Your task to perform on an android device: toggle improve location accuracy Image 0: 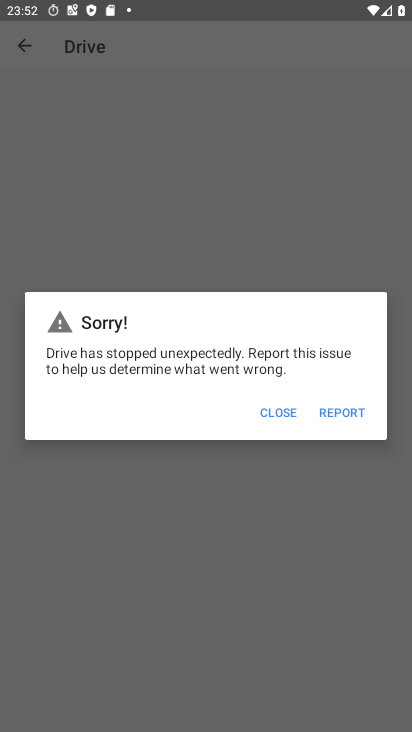
Step 0: press home button
Your task to perform on an android device: toggle improve location accuracy Image 1: 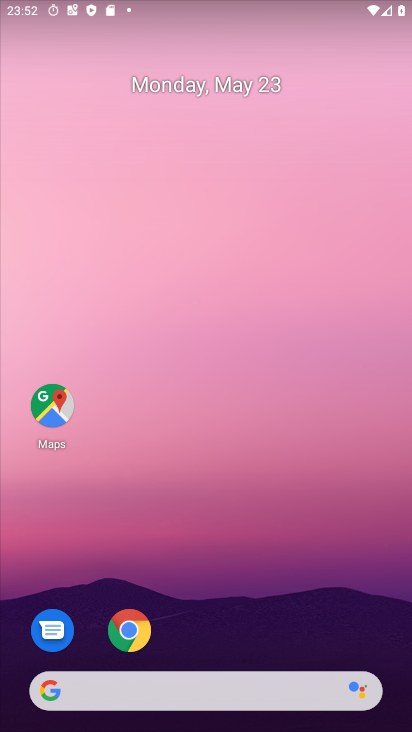
Step 1: drag from (253, 655) to (254, 14)
Your task to perform on an android device: toggle improve location accuracy Image 2: 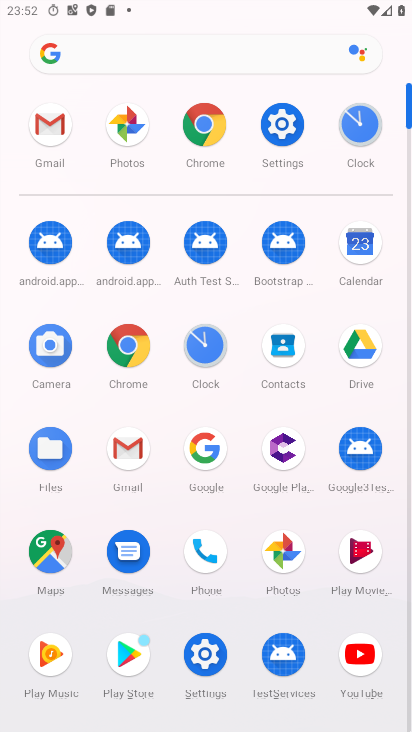
Step 2: click (284, 125)
Your task to perform on an android device: toggle improve location accuracy Image 3: 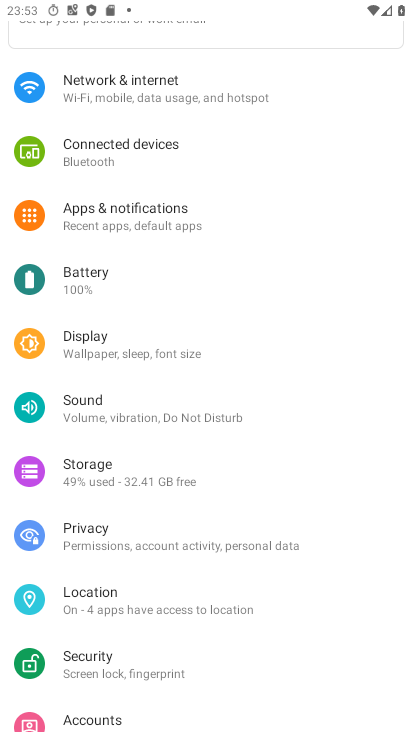
Step 3: click (85, 604)
Your task to perform on an android device: toggle improve location accuracy Image 4: 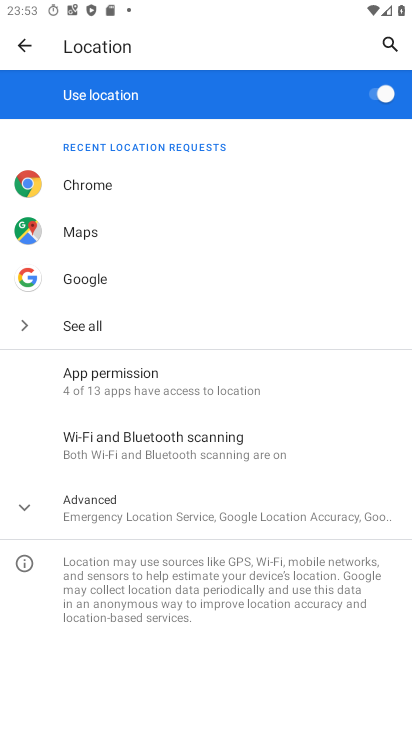
Step 4: click (19, 512)
Your task to perform on an android device: toggle improve location accuracy Image 5: 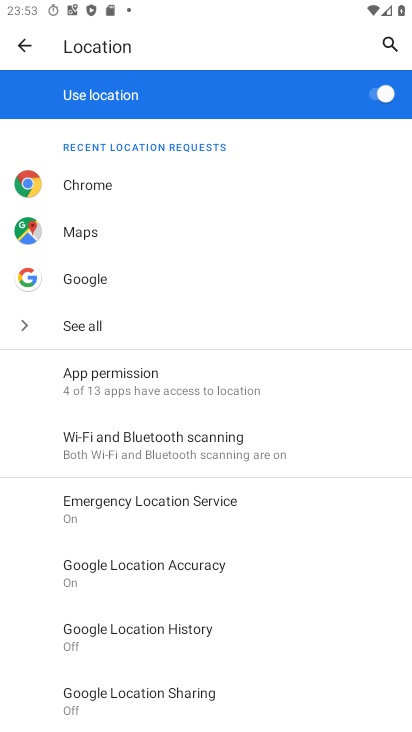
Step 5: click (126, 570)
Your task to perform on an android device: toggle improve location accuracy Image 6: 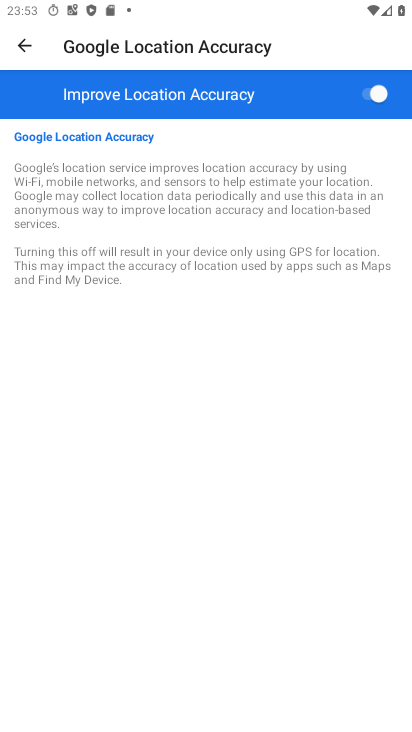
Step 6: click (374, 89)
Your task to perform on an android device: toggle improve location accuracy Image 7: 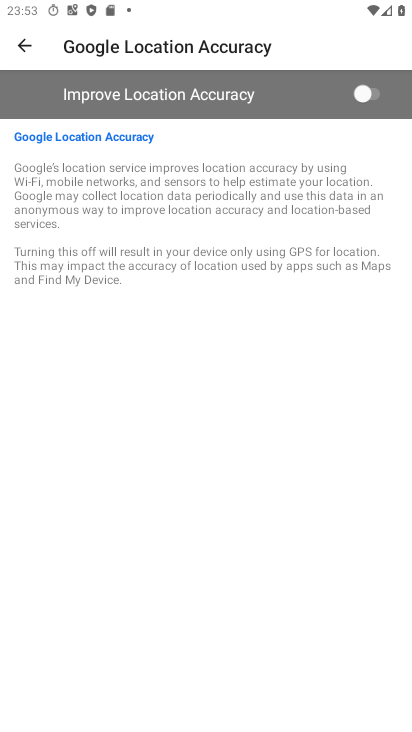
Step 7: task complete